Your task to perform on an android device: Go to Google maps Image 0: 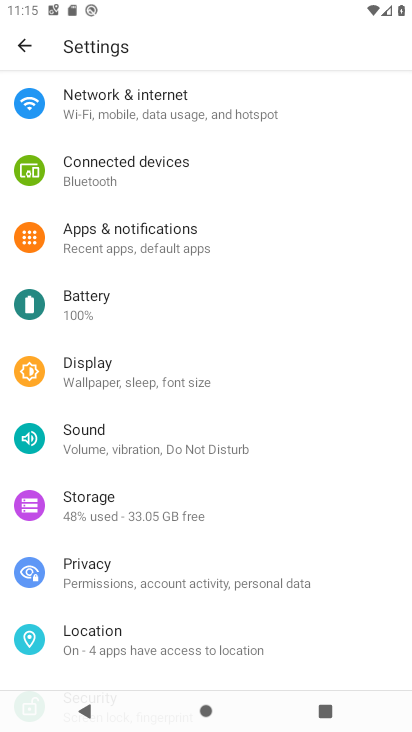
Step 0: press home button
Your task to perform on an android device: Go to Google maps Image 1: 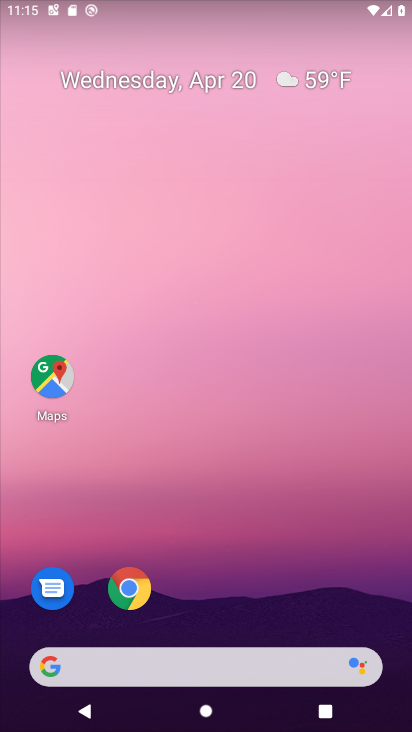
Step 1: click (62, 378)
Your task to perform on an android device: Go to Google maps Image 2: 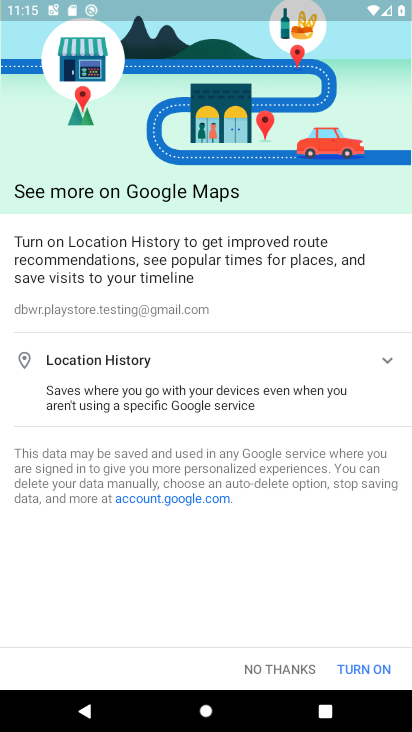
Step 2: click (362, 681)
Your task to perform on an android device: Go to Google maps Image 3: 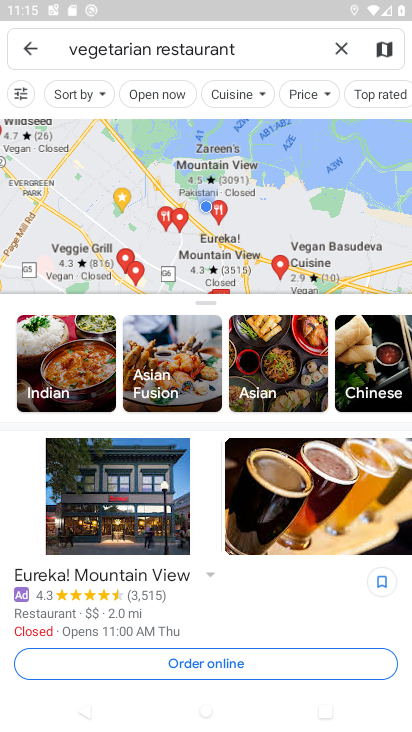
Step 3: task complete